Your task to perform on an android device: What's on my calendar tomorrow? Image 0: 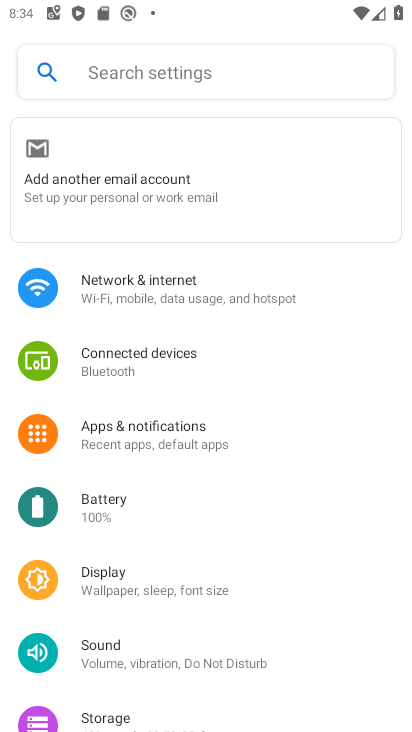
Step 0: press home button
Your task to perform on an android device: What's on my calendar tomorrow? Image 1: 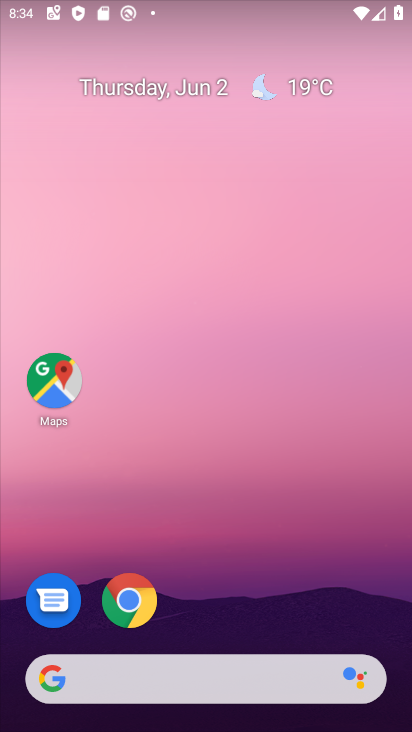
Step 1: drag from (317, 478) to (360, 87)
Your task to perform on an android device: What's on my calendar tomorrow? Image 2: 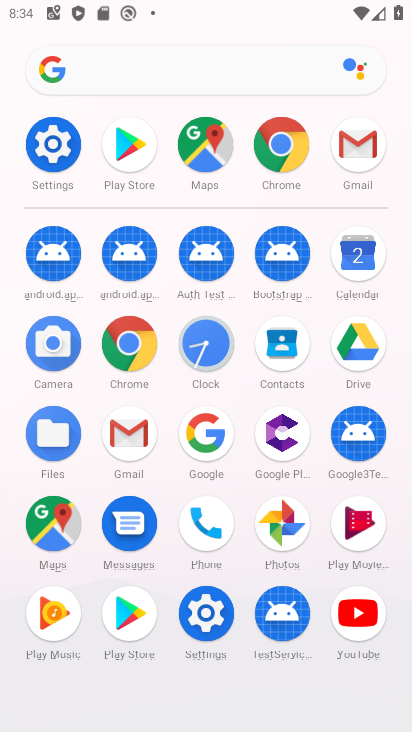
Step 2: click (371, 260)
Your task to perform on an android device: What's on my calendar tomorrow? Image 3: 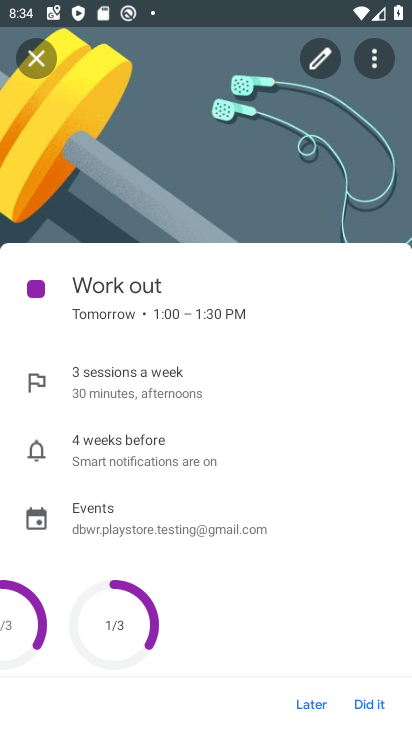
Step 3: task complete